Your task to perform on an android device: turn pop-ups on in chrome Image 0: 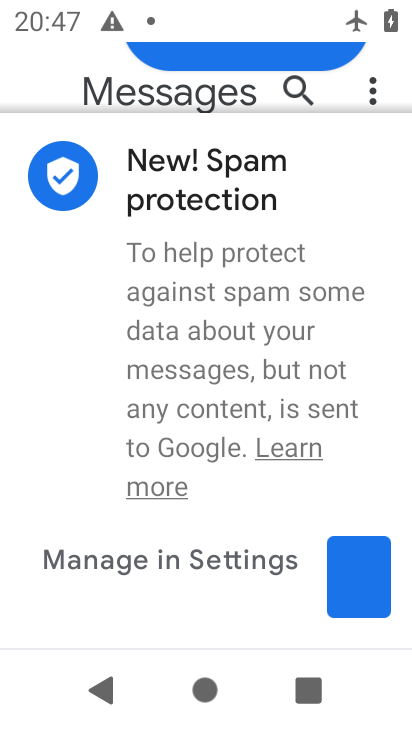
Step 0: press home button
Your task to perform on an android device: turn pop-ups on in chrome Image 1: 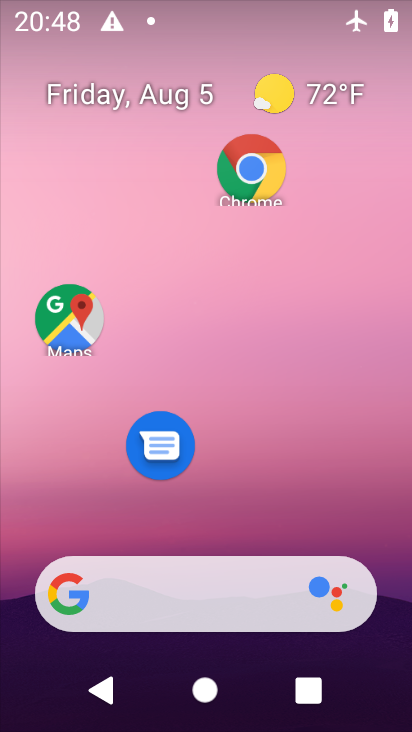
Step 1: click (257, 178)
Your task to perform on an android device: turn pop-ups on in chrome Image 2: 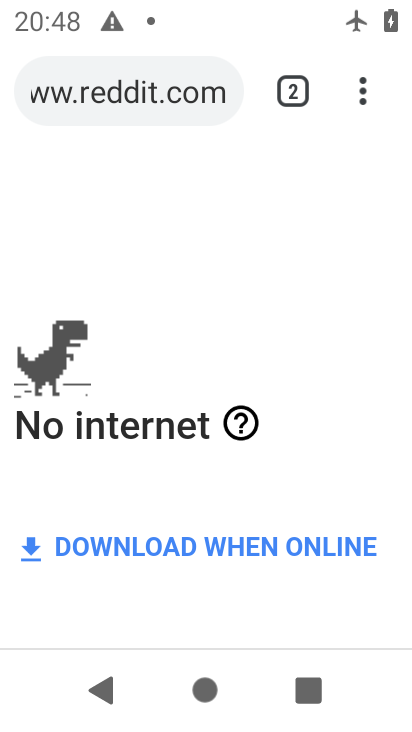
Step 2: click (354, 94)
Your task to perform on an android device: turn pop-ups on in chrome Image 3: 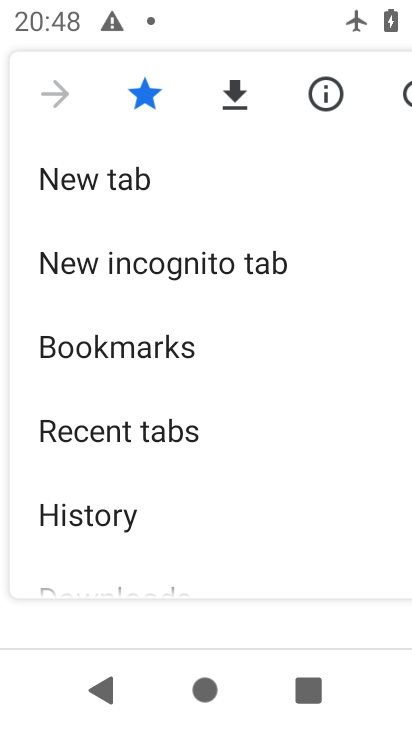
Step 3: drag from (151, 523) to (195, 199)
Your task to perform on an android device: turn pop-ups on in chrome Image 4: 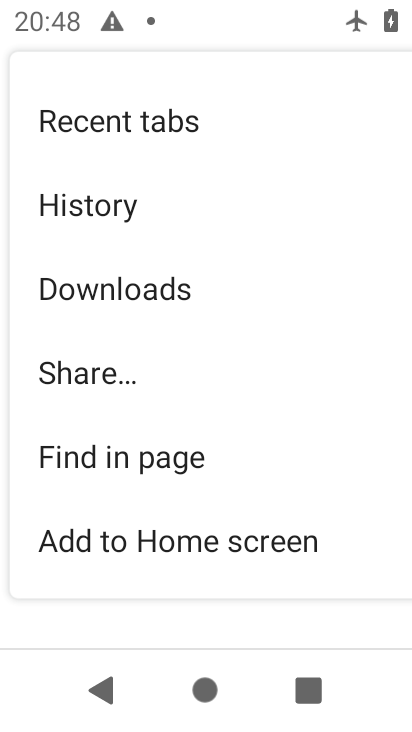
Step 4: drag from (177, 490) to (220, 186)
Your task to perform on an android device: turn pop-ups on in chrome Image 5: 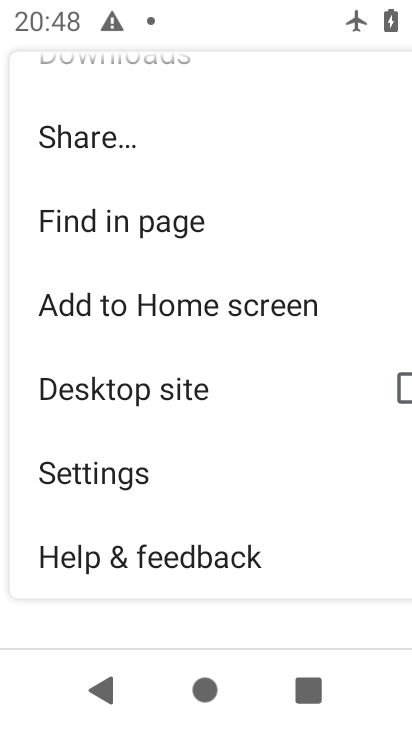
Step 5: click (150, 479)
Your task to perform on an android device: turn pop-ups on in chrome Image 6: 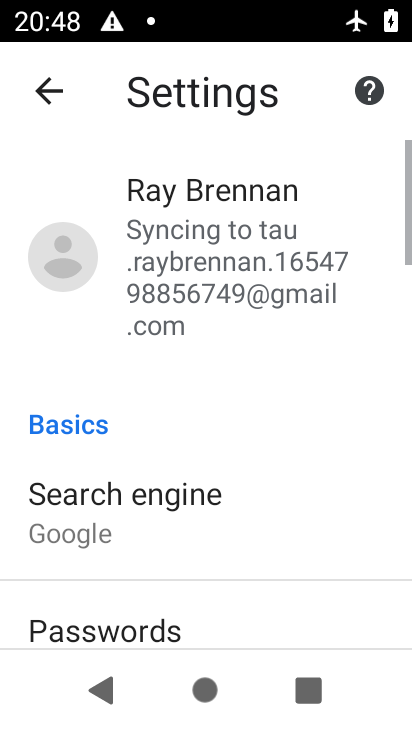
Step 6: drag from (188, 541) to (253, 168)
Your task to perform on an android device: turn pop-ups on in chrome Image 7: 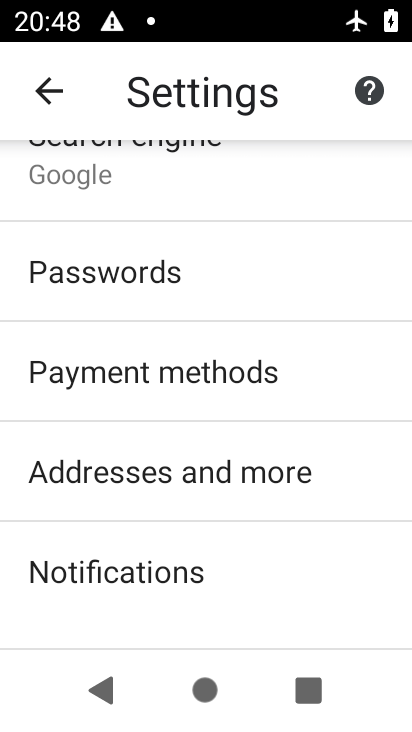
Step 7: drag from (219, 522) to (235, 188)
Your task to perform on an android device: turn pop-ups on in chrome Image 8: 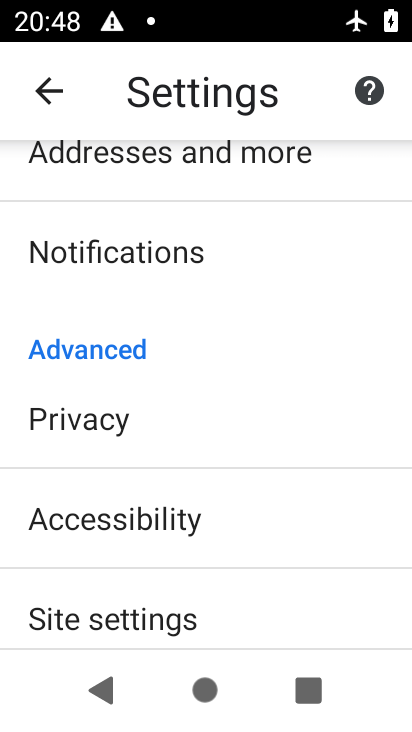
Step 8: click (209, 610)
Your task to perform on an android device: turn pop-ups on in chrome Image 9: 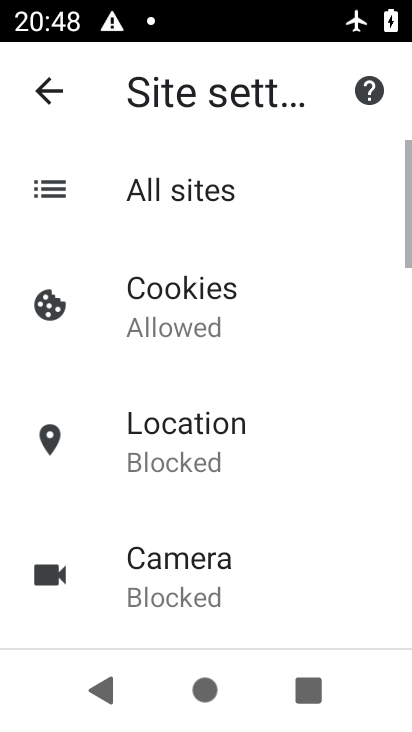
Step 9: drag from (223, 562) to (253, 137)
Your task to perform on an android device: turn pop-ups on in chrome Image 10: 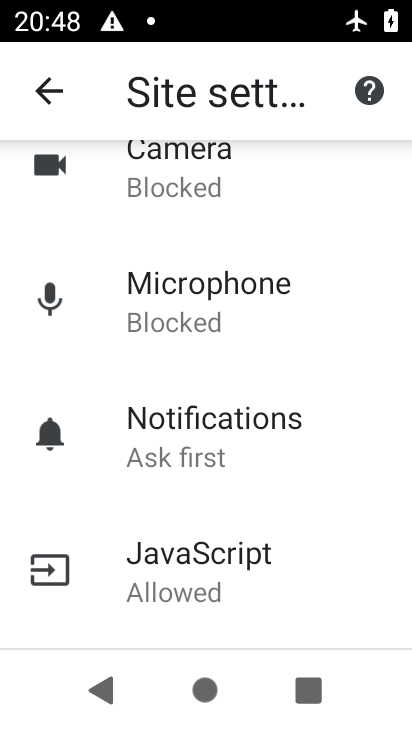
Step 10: drag from (261, 536) to (309, 157)
Your task to perform on an android device: turn pop-ups on in chrome Image 11: 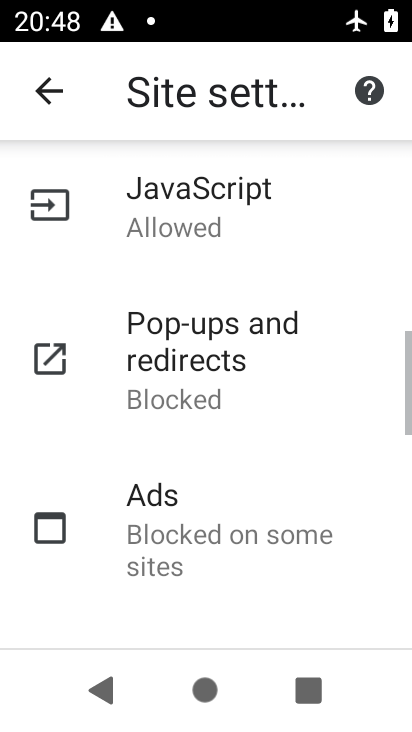
Step 11: click (191, 396)
Your task to perform on an android device: turn pop-ups on in chrome Image 12: 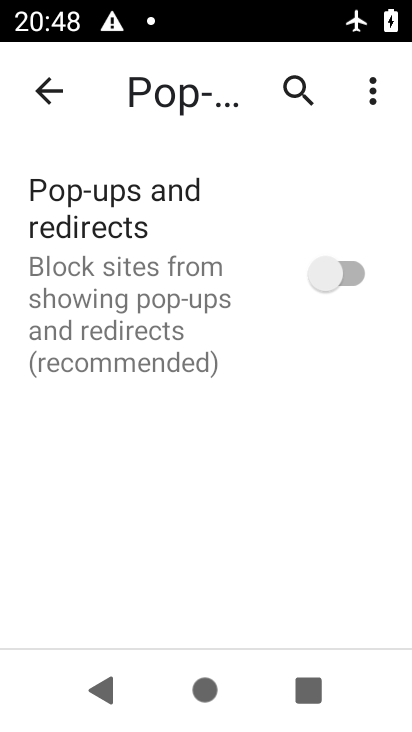
Step 12: click (357, 283)
Your task to perform on an android device: turn pop-ups on in chrome Image 13: 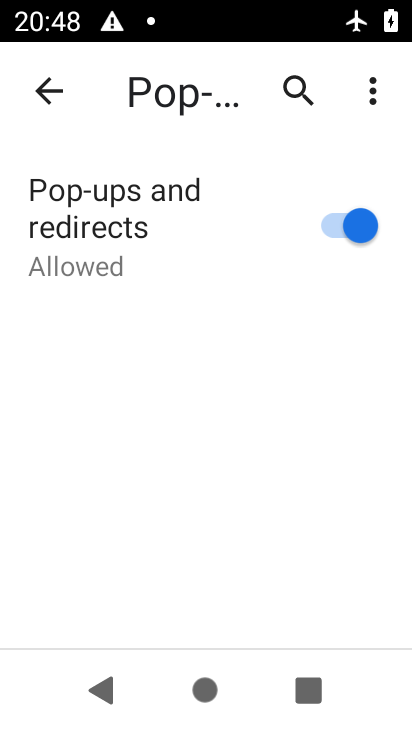
Step 13: task complete